Your task to perform on an android device: Open Android settings Image 0: 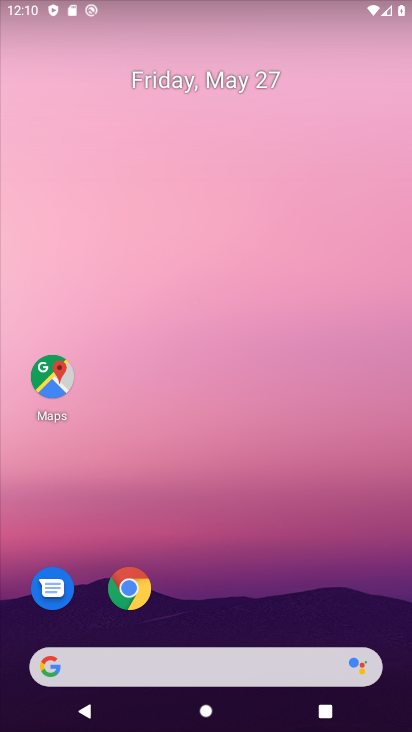
Step 0: press home button
Your task to perform on an android device: Open Android settings Image 1: 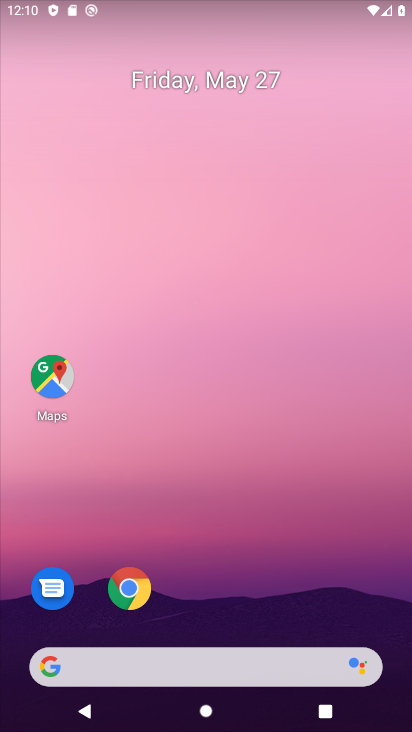
Step 1: press home button
Your task to perform on an android device: Open Android settings Image 2: 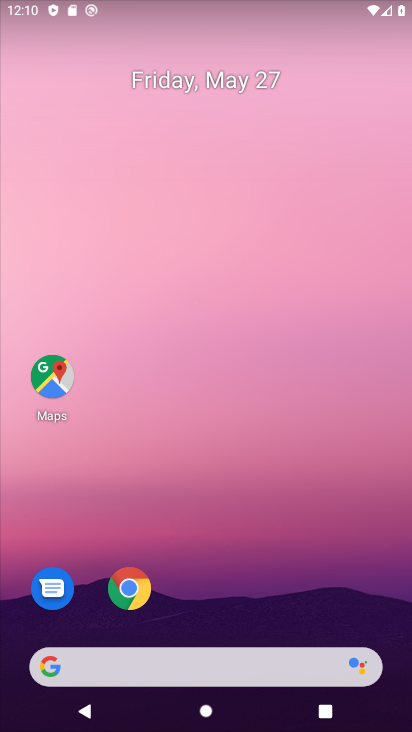
Step 2: drag from (207, 631) to (246, 70)
Your task to perform on an android device: Open Android settings Image 3: 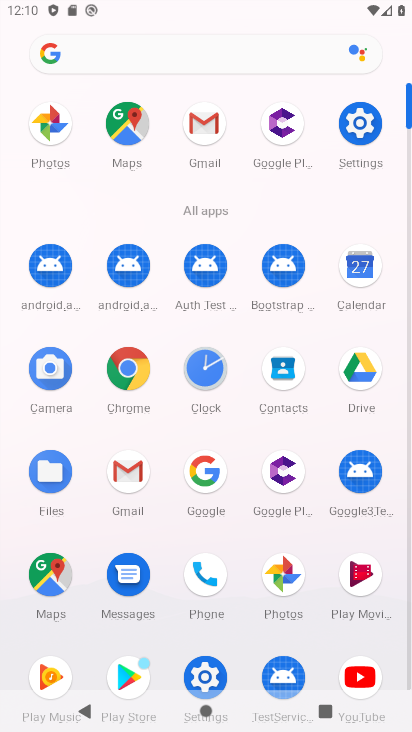
Step 3: click (354, 120)
Your task to perform on an android device: Open Android settings Image 4: 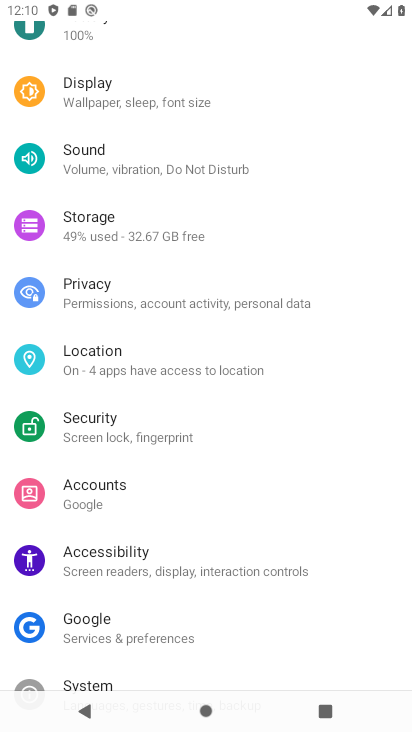
Step 4: drag from (228, 636) to (230, 59)
Your task to perform on an android device: Open Android settings Image 5: 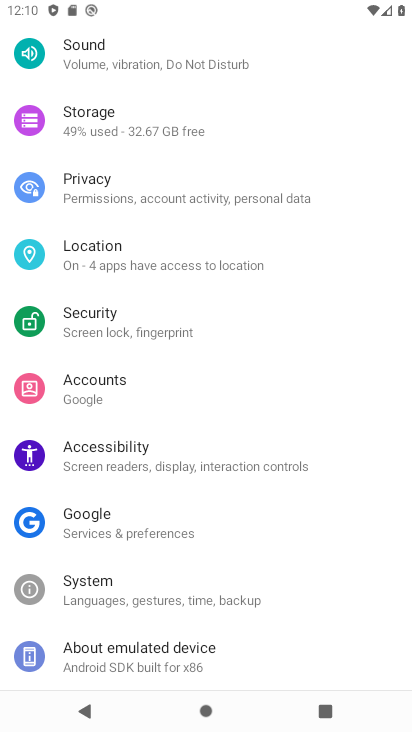
Step 5: click (218, 658)
Your task to perform on an android device: Open Android settings Image 6: 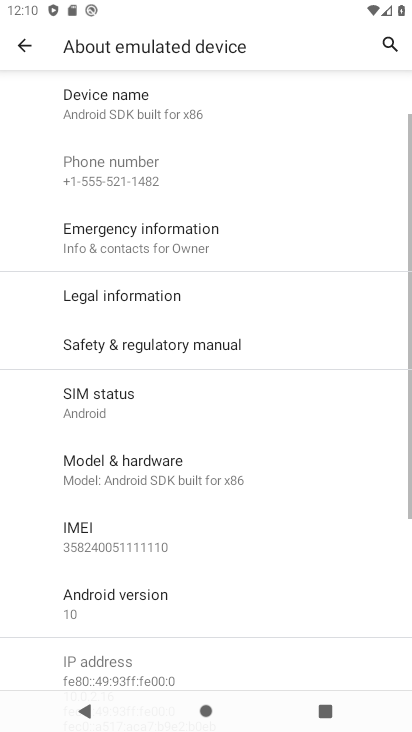
Step 6: click (146, 604)
Your task to perform on an android device: Open Android settings Image 7: 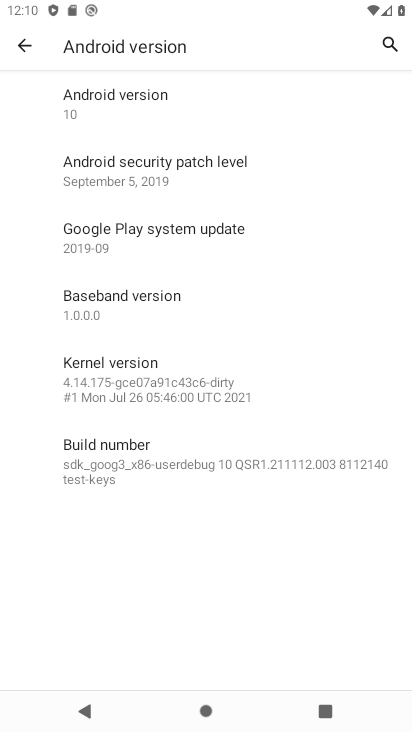
Step 7: task complete